Your task to perform on an android device: toggle pop-ups in chrome Image 0: 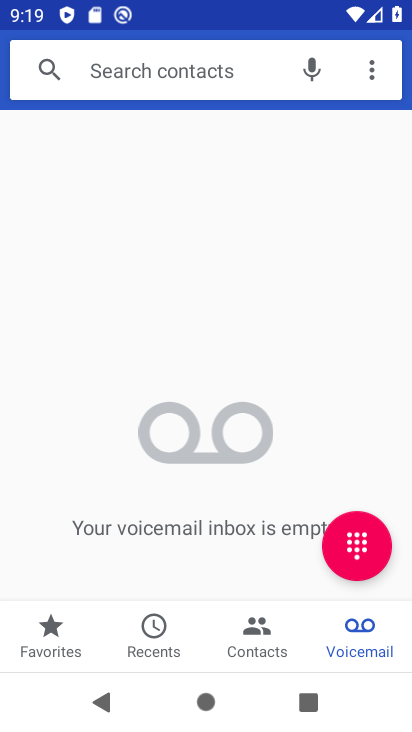
Step 0: click (256, 525)
Your task to perform on an android device: toggle pop-ups in chrome Image 1: 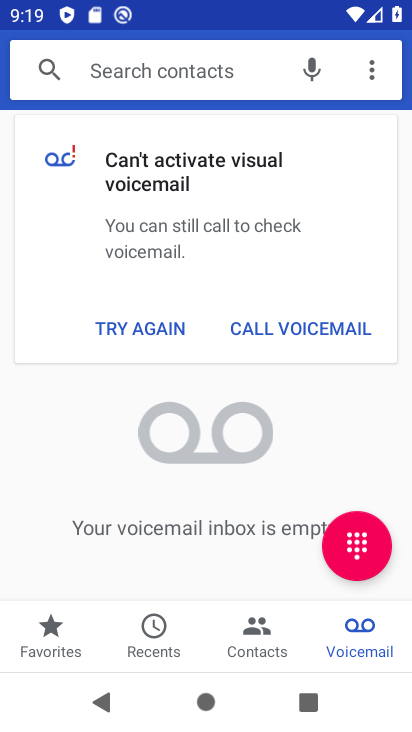
Step 1: press back button
Your task to perform on an android device: toggle pop-ups in chrome Image 2: 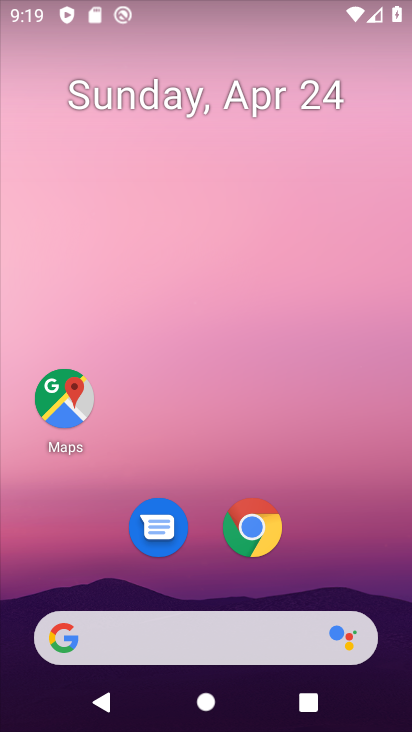
Step 2: click (241, 541)
Your task to perform on an android device: toggle pop-ups in chrome Image 3: 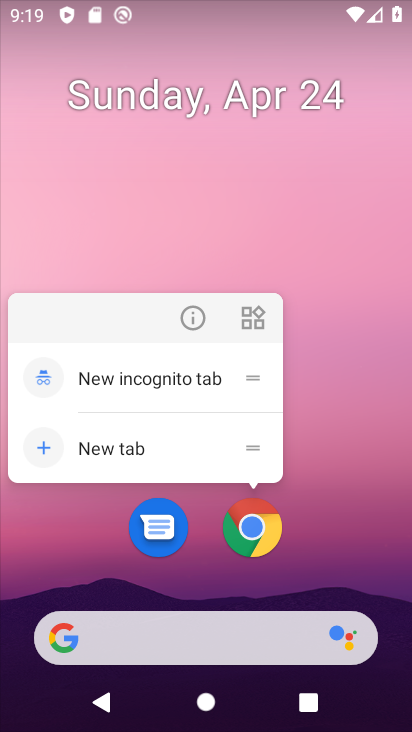
Step 3: click (279, 524)
Your task to perform on an android device: toggle pop-ups in chrome Image 4: 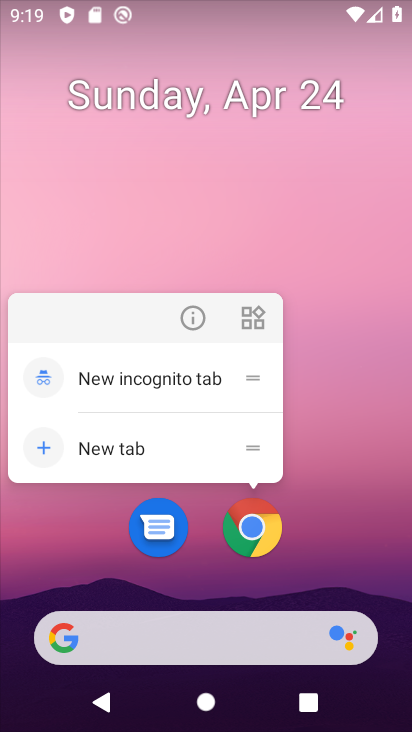
Step 4: click (262, 515)
Your task to perform on an android device: toggle pop-ups in chrome Image 5: 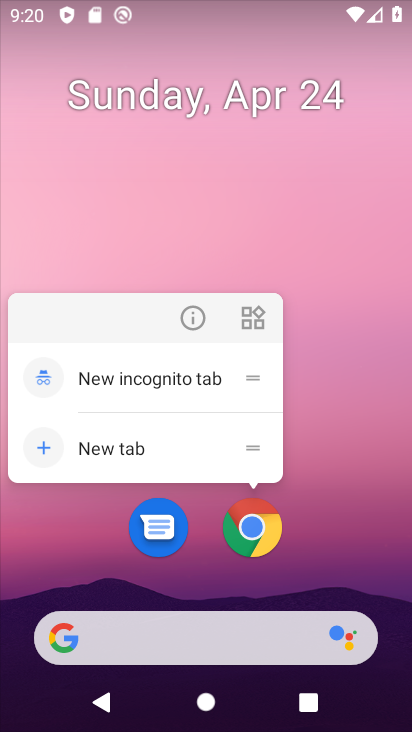
Step 5: click (253, 525)
Your task to perform on an android device: toggle pop-ups in chrome Image 6: 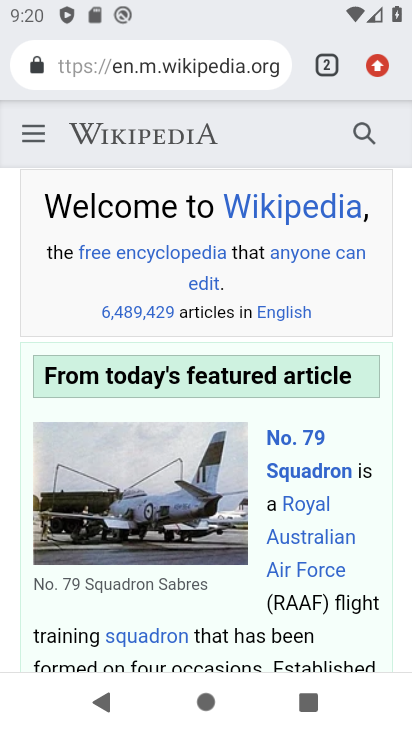
Step 6: drag from (375, 61) to (140, 573)
Your task to perform on an android device: toggle pop-ups in chrome Image 7: 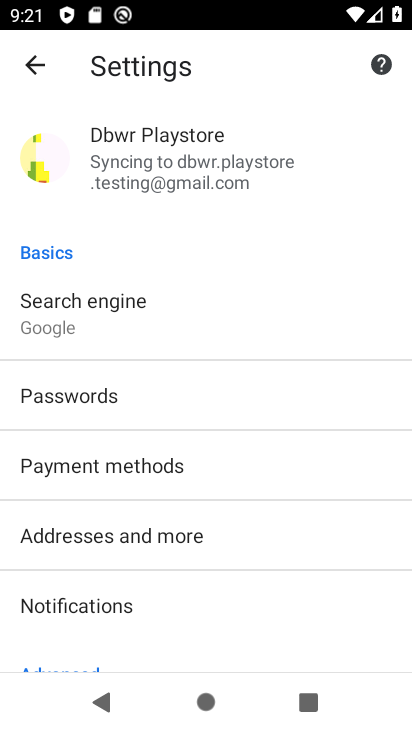
Step 7: drag from (101, 599) to (277, 93)
Your task to perform on an android device: toggle pop-ups in chrome Image 8: 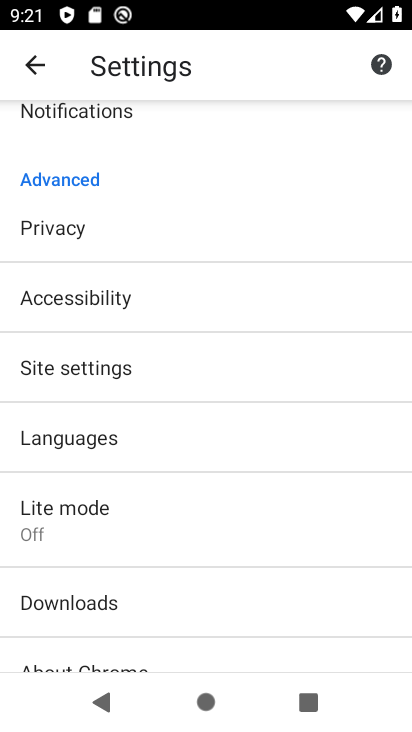
Step 8: click (145, 372)
Your task to perform on an android device: toggle pop-ups in chrome Image 9: 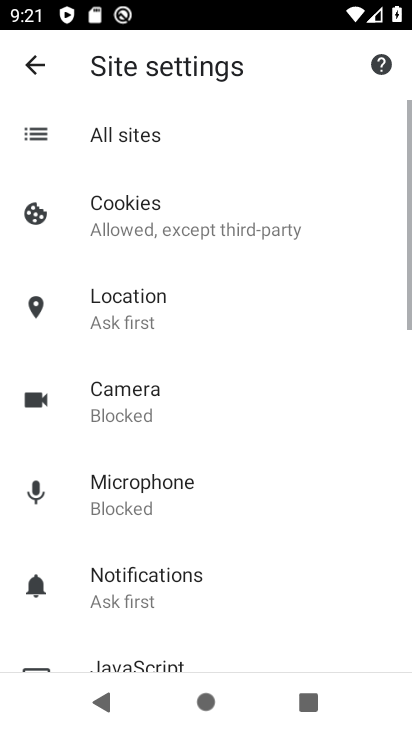
Step 9: drag from (163, 636) to (257, 110)
Your task to perform on an android device: toggle pop-ups in chrome Image 10: 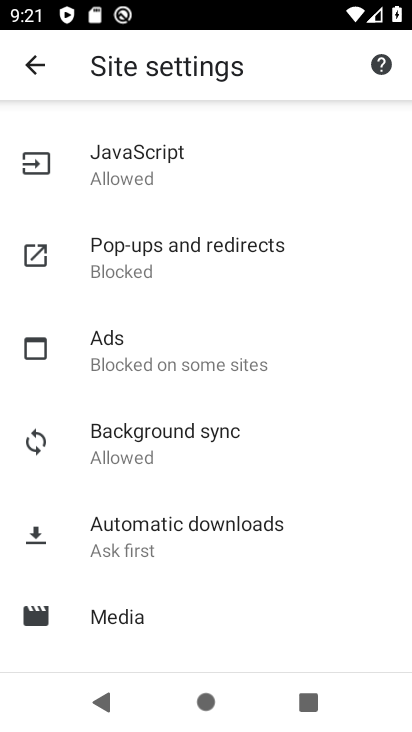
Step 10: click (132, 256)
Your task to perform on an android device: toggle pop-ups in chrome Image 11: 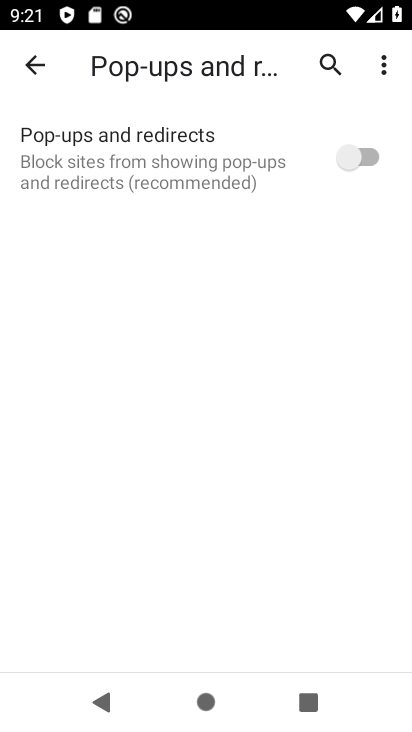
Step 11: click (351, 152)
Your task to perform on an android device: toggle pop-ups in chrome Image 12: 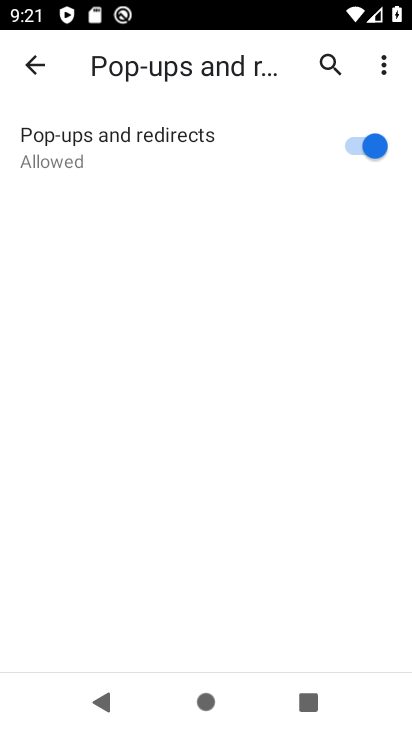
Step 12: task complete